Your task to perform on an android device: Go to display settings Image 0: 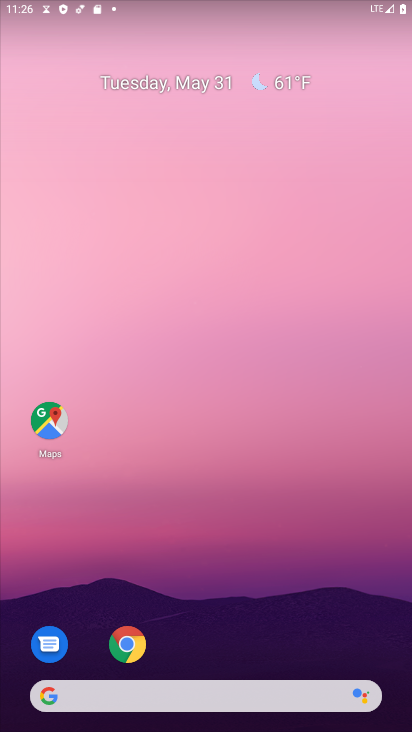
Step 0: drag from (223, 616) to (228, 142)
Your task to perform on an android device: Go to display settings Image 1: 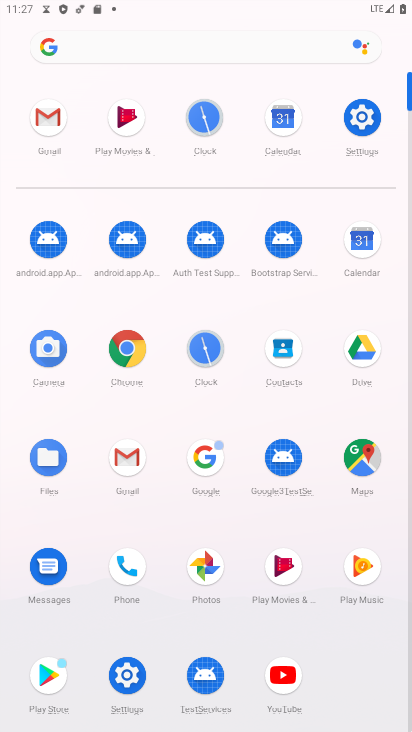
Step 1: click (358, 120)
Your task to perform on an android device: Go to display settings Image 2: 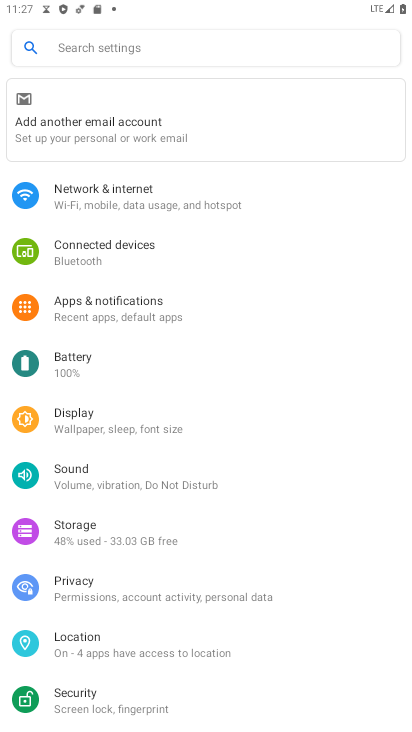
Step 2: click (94, 421)
Your task to perform on an android device: Go to display settings Image 3: 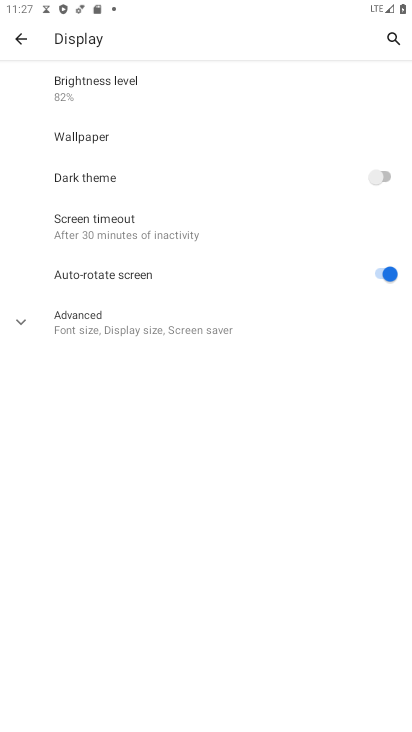
Step 3: task complete